Your task to perform on an android device: turn off data saver in the chrome app Image 0: 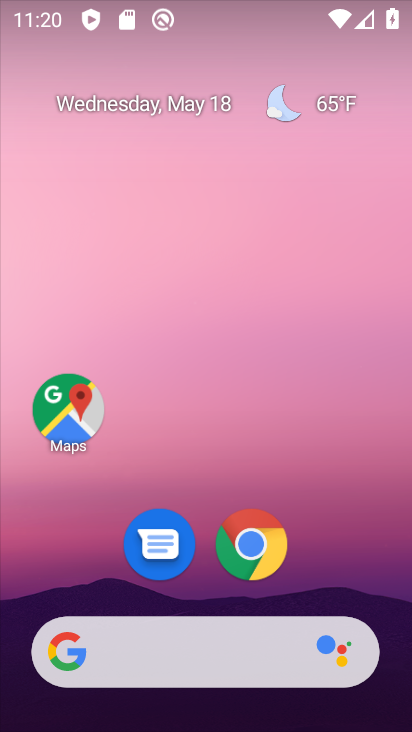
Step 0: drag from (378, 575) to (349, 93)
Your task to perform on an android device: turn off data saver in the chrome app Image 1: 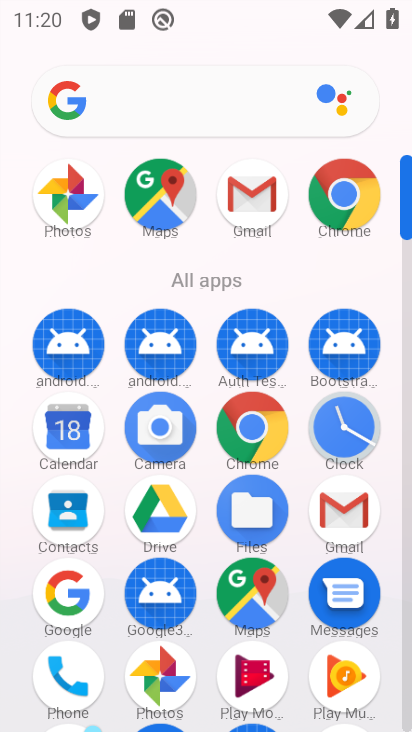
Step 1: click (237, 446)
Your task to perform on an android device: turn off data saver in the chrome app Image 2: 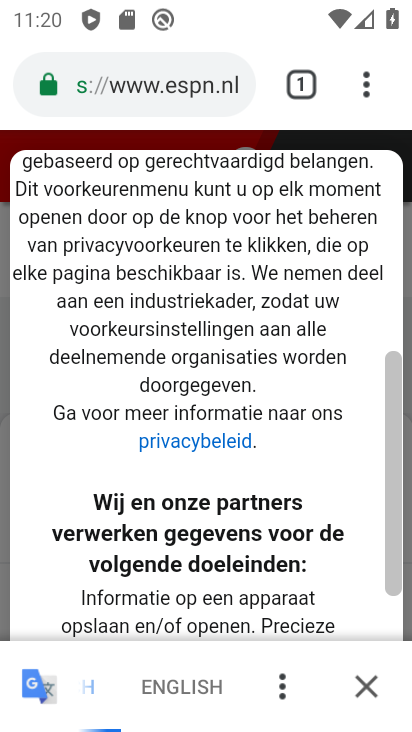
Step 2: click (363, 94)
Your task to perform on an android device: turn off data saver in the chrome app Image 3: 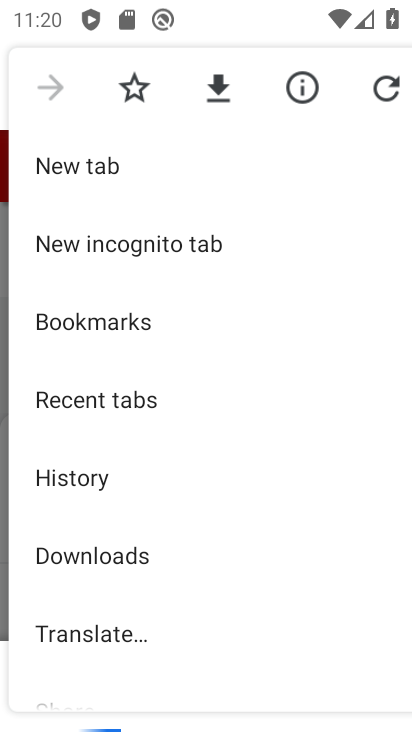
Step 3: drag from (299, 558) to (308, 412)
Your task to perform on an android device: turn off data saver in the chrome app Image 4: 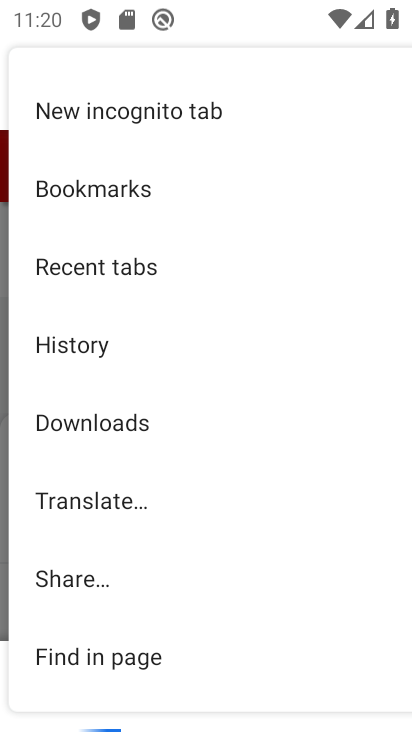
Step 4: drag from (289, 573) to (300, 357)
Your task to perform on an android device: turn off data saver in the chrome app Image 5: 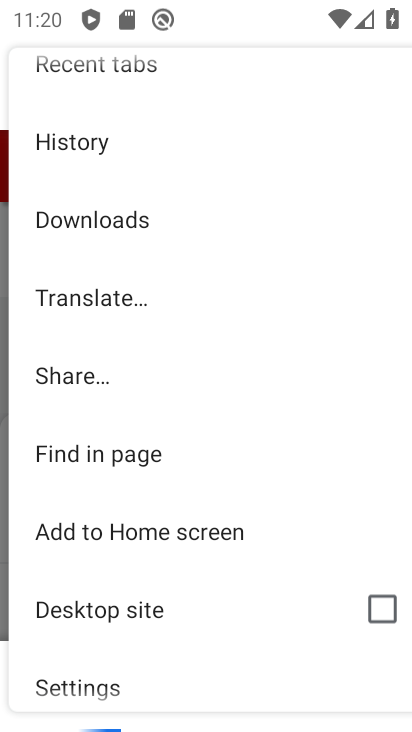
Step 5: drag from (318, 565) to (308, 427)
Your task to perform on an android device: turn off data saver in the chrome app Image 6: 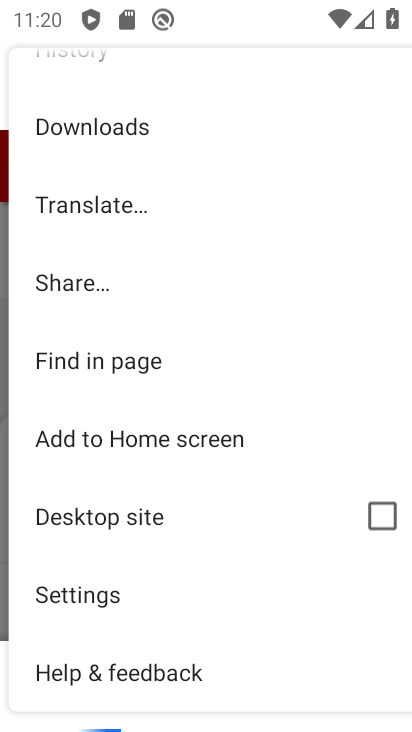
Step 6: click (137, 599)
Your task to perform on an android device: turn off data saver in the chrome app Image 7: 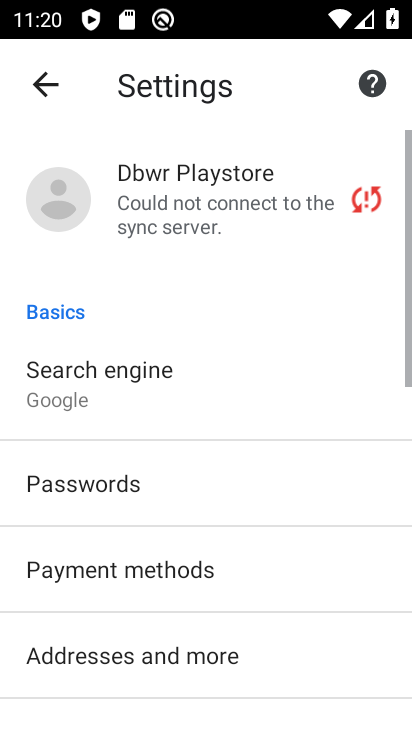
Step 7: drag from (240, 612) to (253, 456)
Your task to perform on an android device: turn off data saver in the chrome app Image 8: 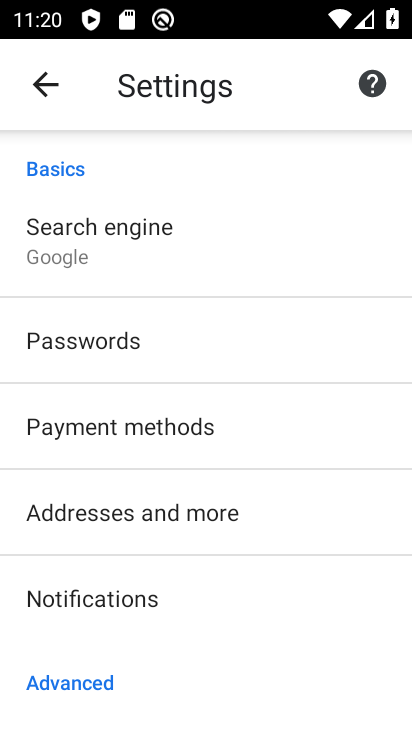
Step 8: drag from (276, 622) to (278, 536)
Your task to perform on an android device: turn off data saver in the chrome app Image 9: 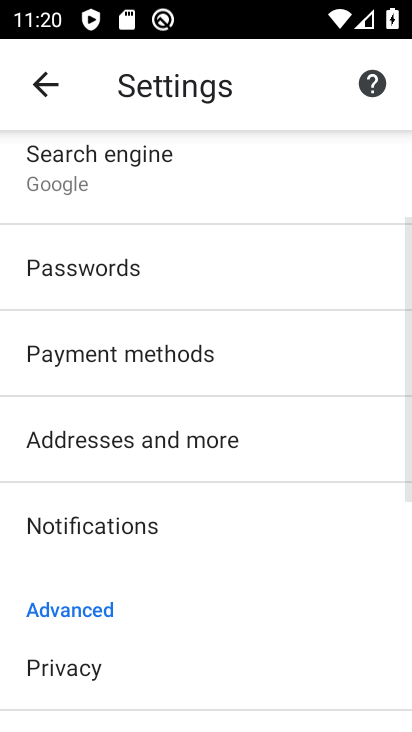
Step 9: drag from (284, 654) to (282, 470)
Your task to perform on an android device: turn off data saver in the chrome app Image 10: 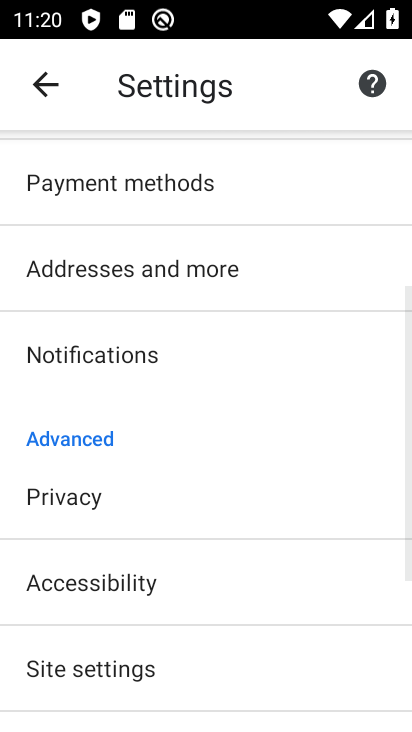
Step 10: drag from (275, 641) to (278, 473)
Your task to perform on an android device: turn off data saver in the chrome app Image 11: 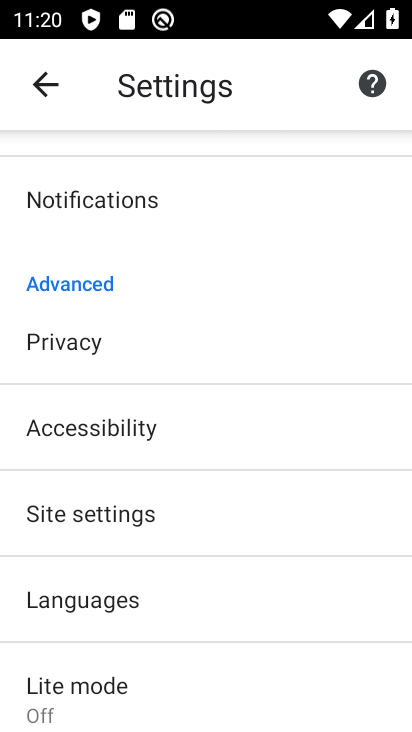
Step 11: drag from (280, 639) to (293, 504)
Your task to perform on an android device: turn off data saver in the chrome app Image 12: 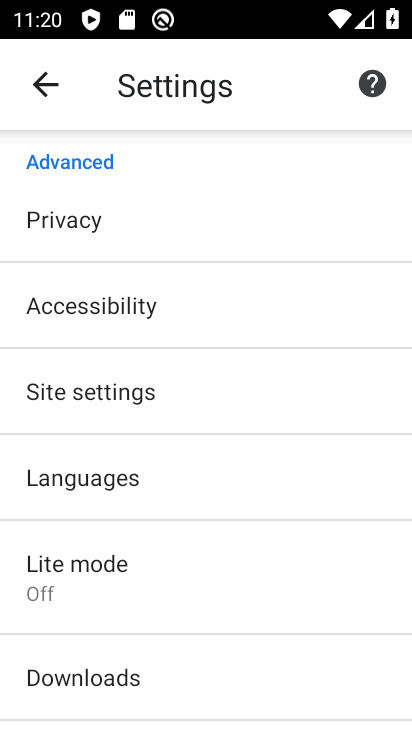
Step 12: drag from (283, 648) to (287, 535)
Your task to perform on an android device: turn off data saver in the chrome app Image 13: 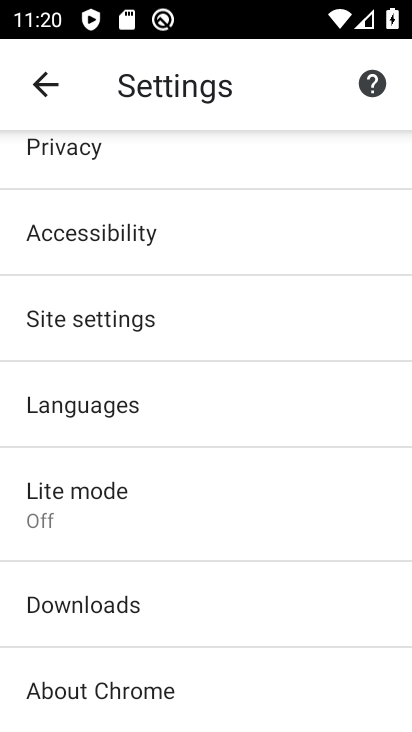
Step 13: click (240, 496)
Your task to perform on an android device: turn off data saver in the chrome app Image 14: 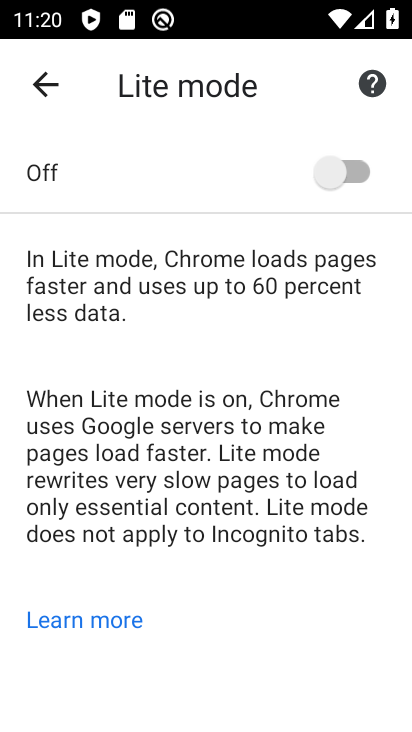
Step 14: task complete